Your task to perform on an android device: change the clock display to show seconds Image 0: 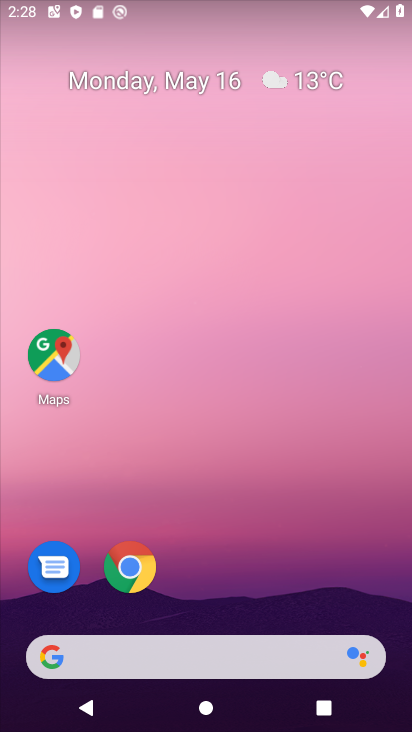
Step 0: drag from (302, 571) to (250, 96)
Your task to perform on an android device: change the clock display to show seconds Image 1: 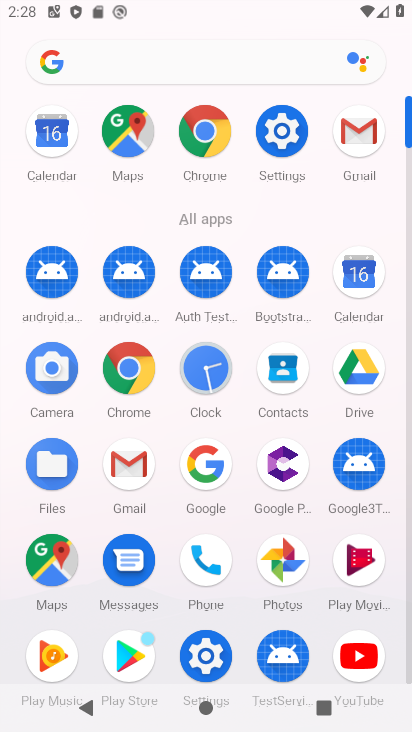
Step 1: click (207, 364)
Your task to perform on an android device: change the clock display to show seconds Image 2: 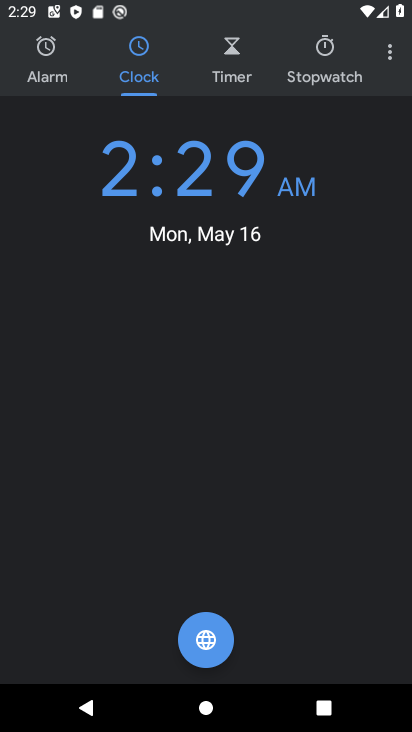
Step 2: click (396, 48)
Your task to perform on an android device: change the clock display to show seconds Image 3: 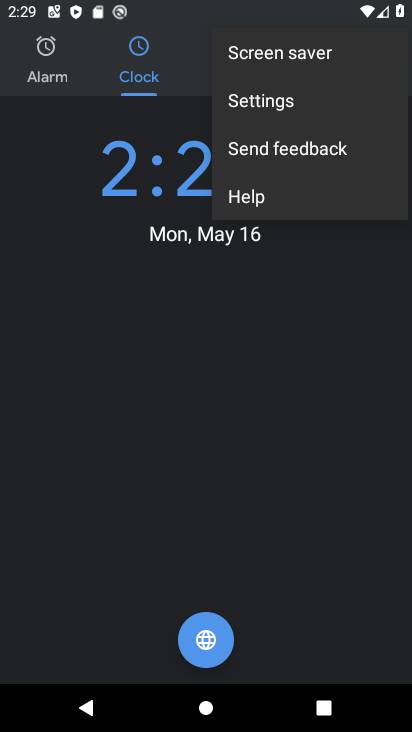
Step 3: click (284, 115)
Your task to perform on an android device: change the clock display to show seconds Image 4: 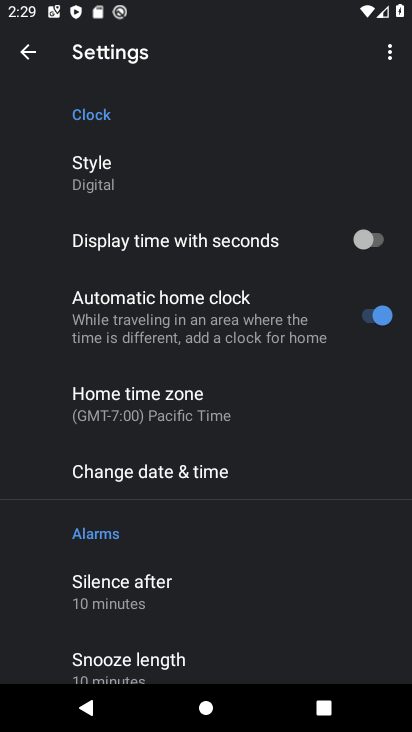
Step 4: click (360, 238)
Your task to perform on an android device: change the clock display to show seconds Image 5: 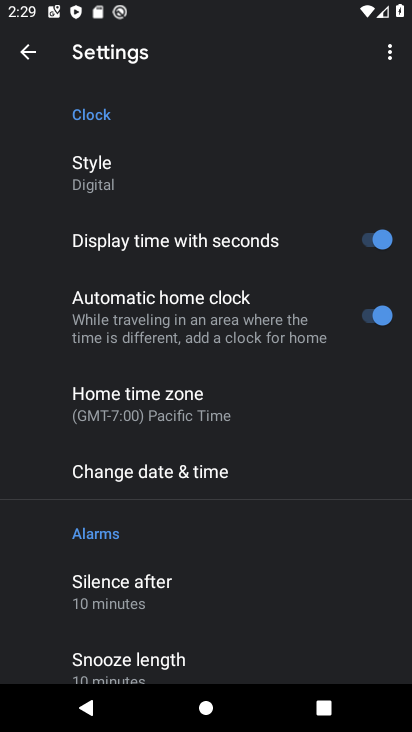
Step 5: task complete